Your task to perform on an android device: check google app version Image 0: 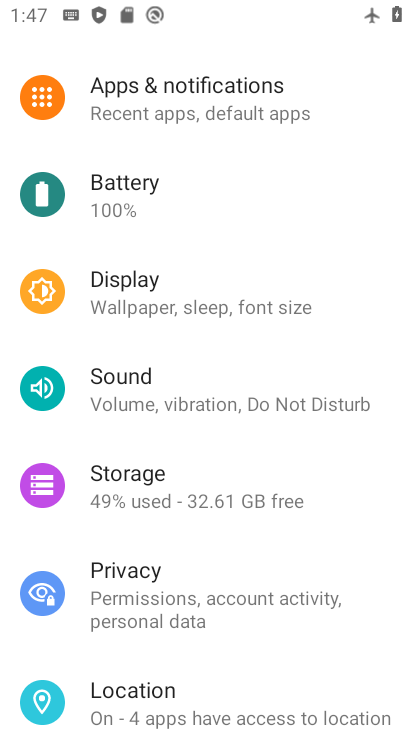
Step 0: press home button
Your task to perform on an android device: check google app version Image 1: 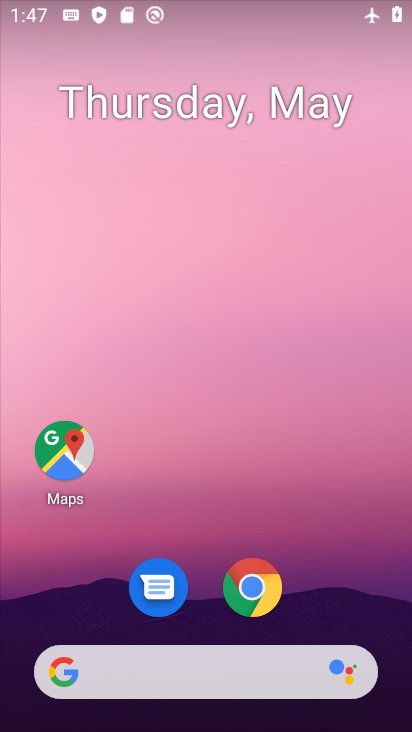
Step 1: drag from (329, 571) to (231, 89)
Your task to perform on an android device: check google app version Image 2: 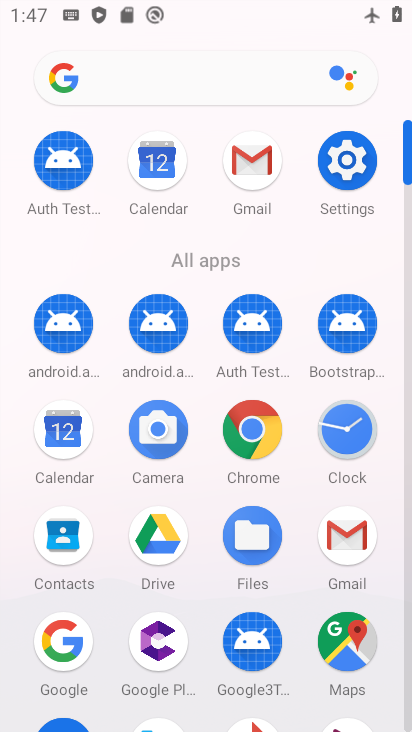
Step 2: click (62, 637)
Your task to perform on an android device: check google app version Image 3: 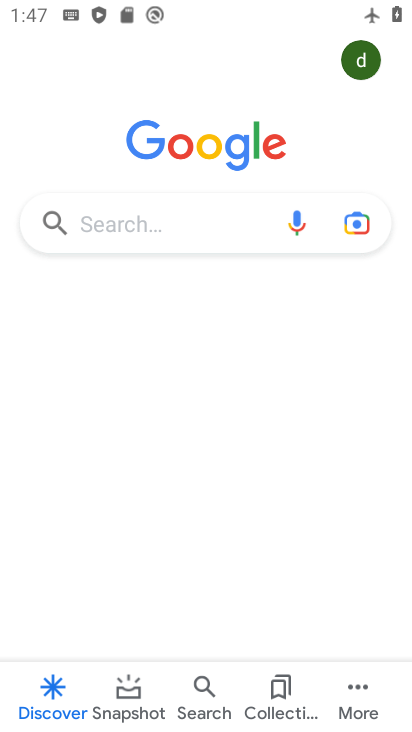
Step 3: click (359, 694)
Your task to perform on an android device: check google app version Image 4: 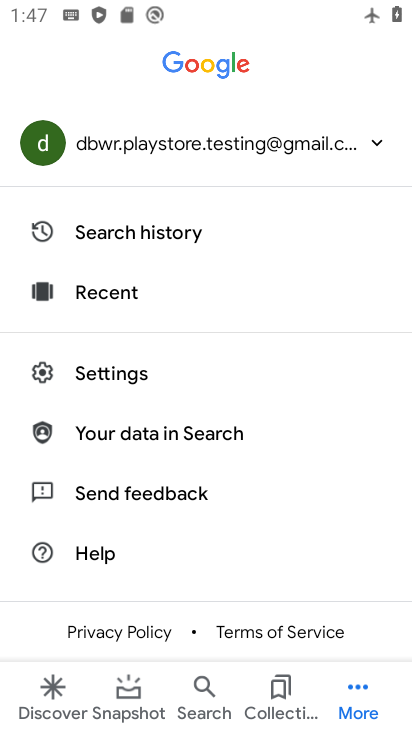
Step 4: click (110, 370)
Your task to perform on an android device: check google app version Image 5: 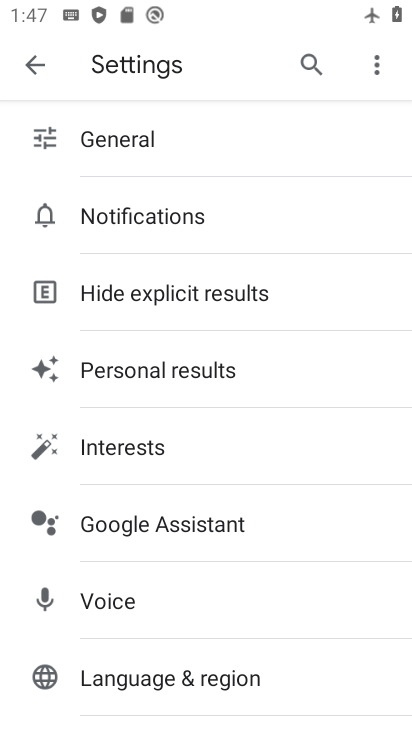
Step 5: drag from (245, 581) to (200, 307)
Your task to perform on an android device: check google app version Image 6: 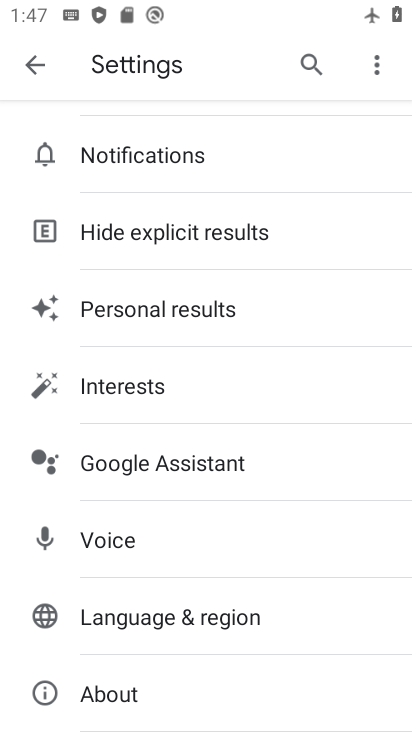
Step 6: click (108, 689)
Your task to perform on an android device: check google app version Image 7: 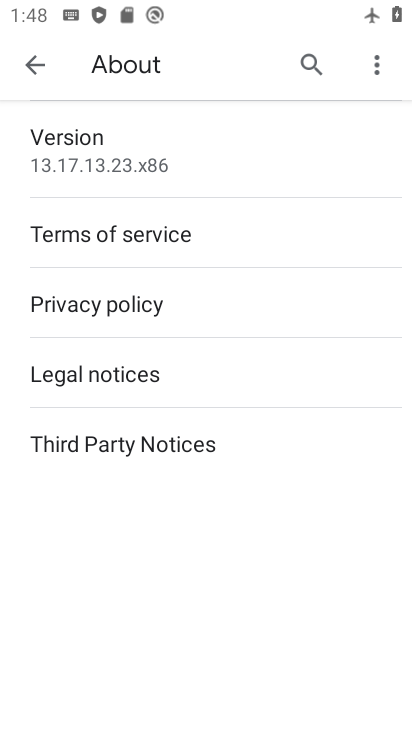
Step 7: task complete